Your task to perform on an android device: turn off improve location accuracy Image 0: 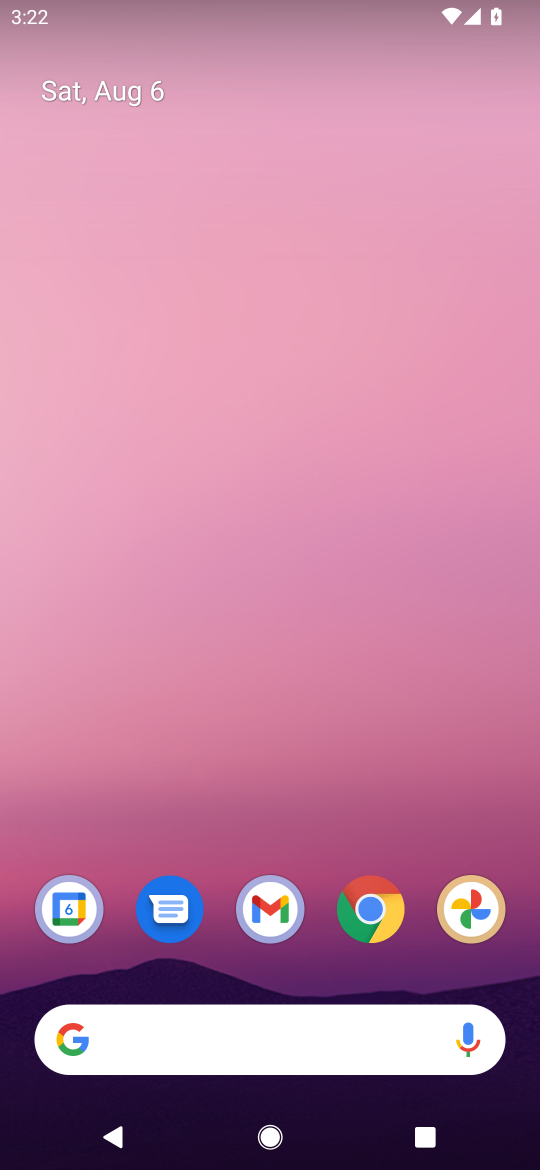
Step 0: drag from (330, 861) to (373, 28)
Your task to perform on an android device: turn off improve location accuracy Image 1: 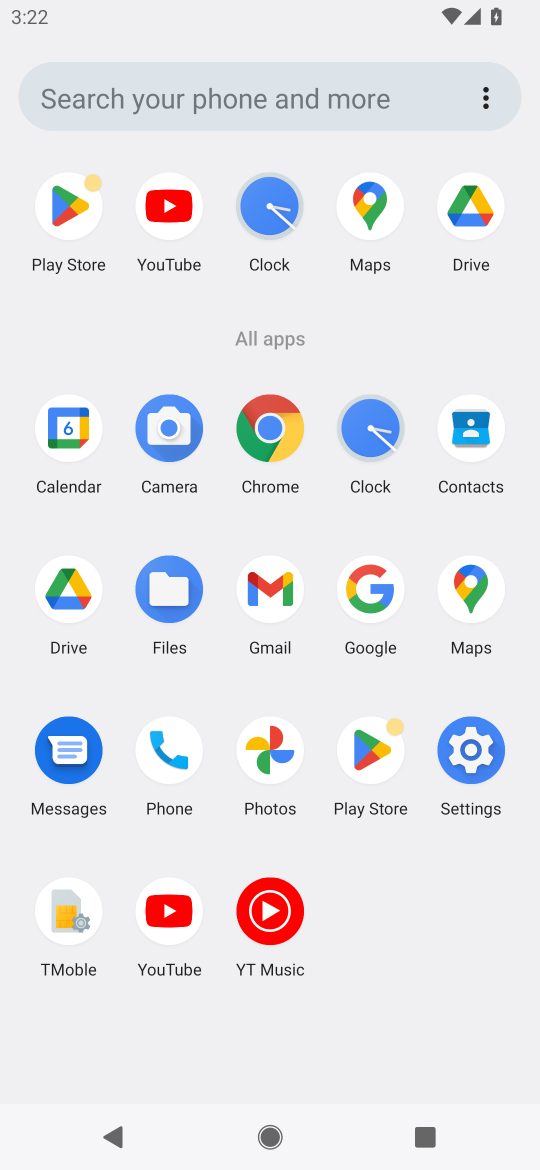
Step 1: click (443, 751)
Your task to perform on an android device: turn off improve location accuracy Image 2: 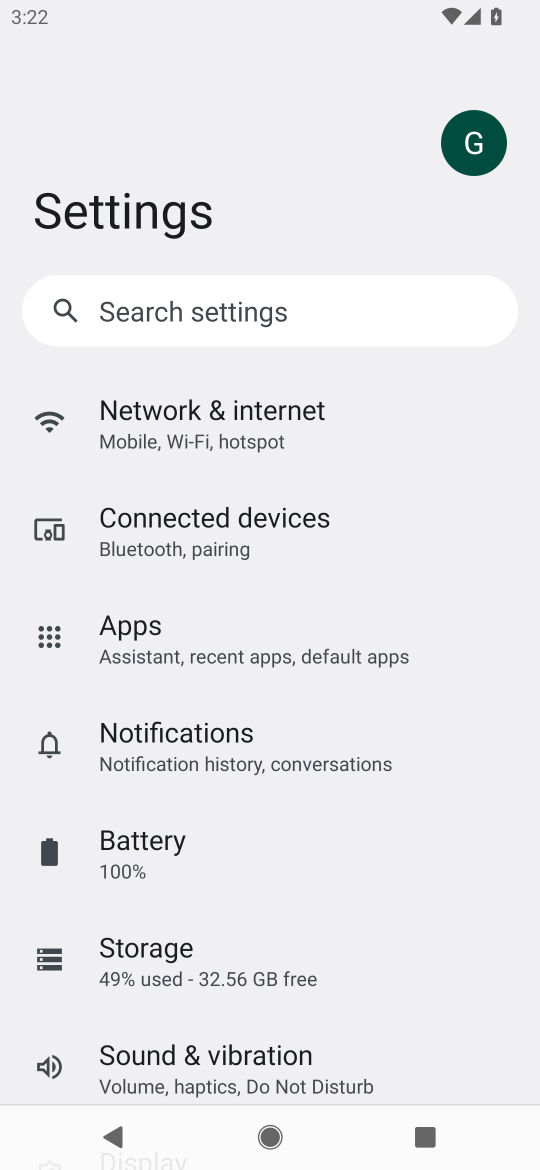
Step 2: drag from (171, 995) to (355, 59)
Your task to perform on an android device: turn off improve location accuracy Image 3: 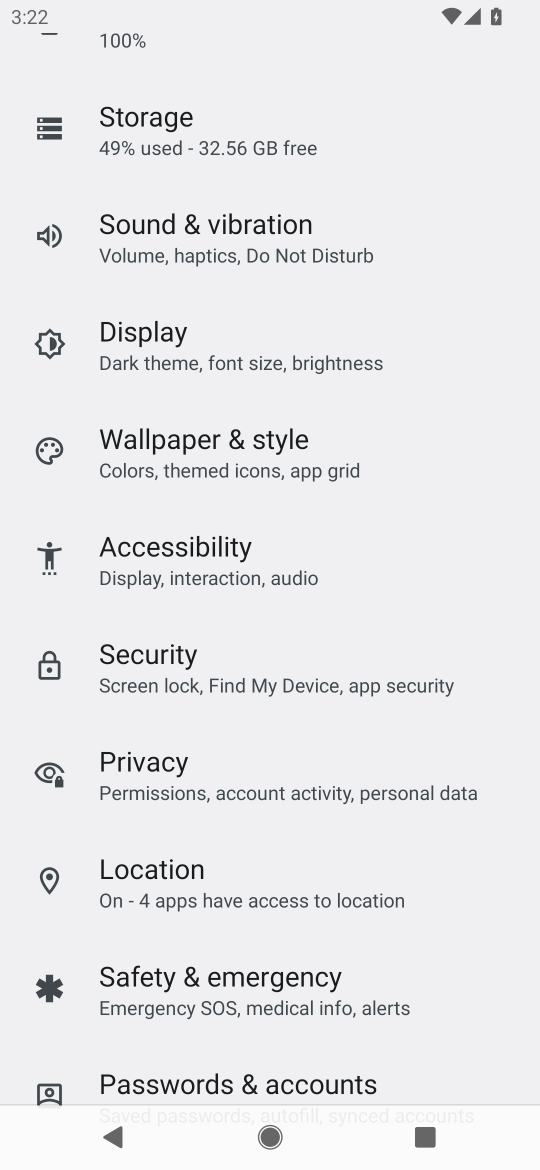
Step 3: click (162, 872)
Your task to perform on an android device: turn off improve location accuracy Image 4: 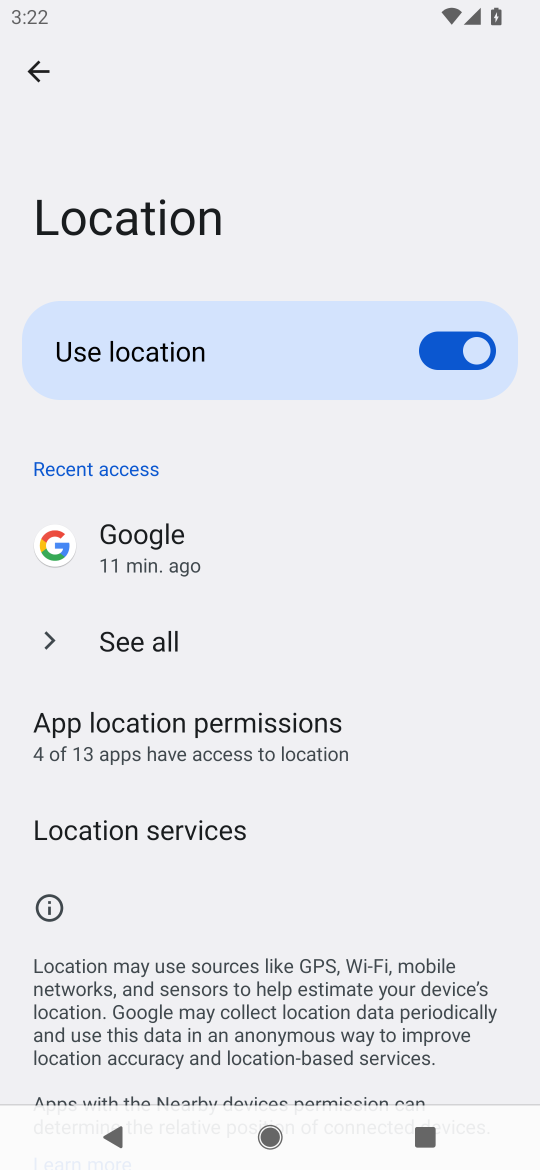
Step 4: click (141, 841)
Your task to perform on an android device: turn off improve location accuracy Image 5: 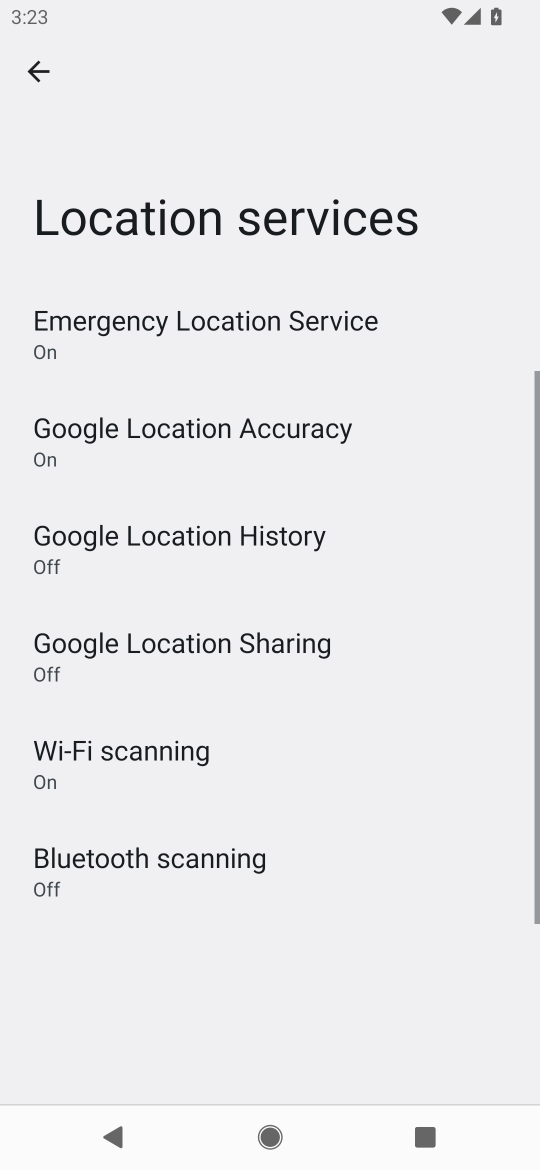
Step 5: click (177, 431)
Your task to perform on an android device: turn off improve location accuracy Image 6: 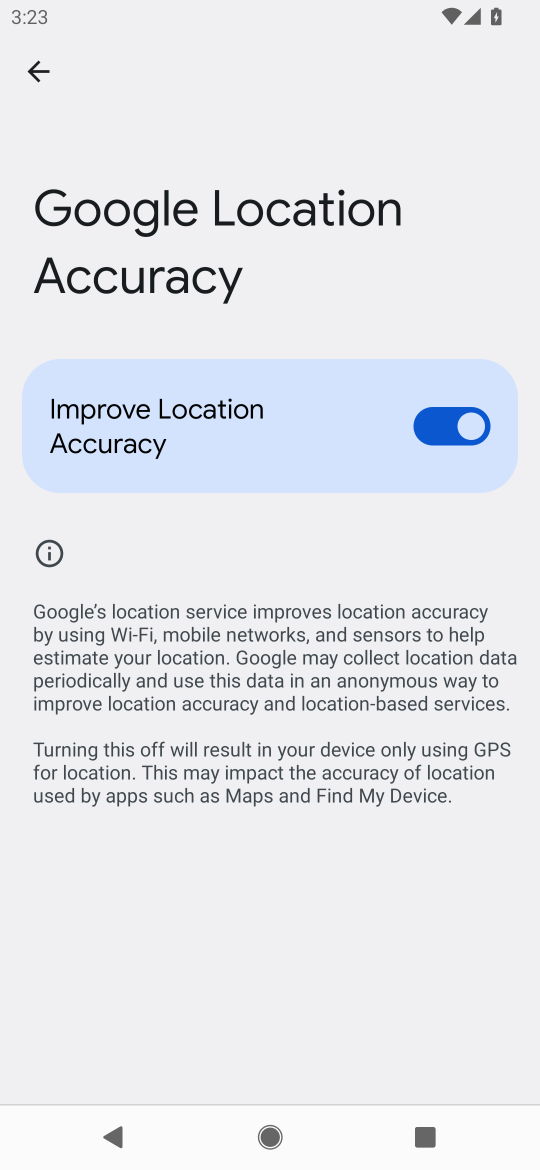
Step 6: click (481, 427)
Your task to perform on an android device: turn off improve location accuracy Image 7: 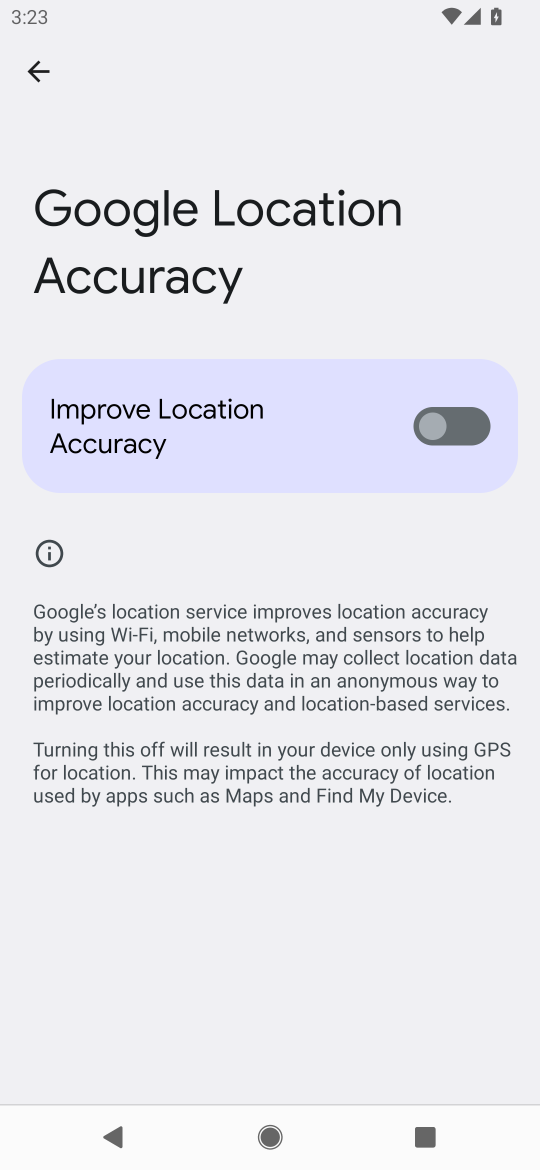
Step 7: task complete